Your task to perform on an android device: delete browsing data in the chrome app Image 0: 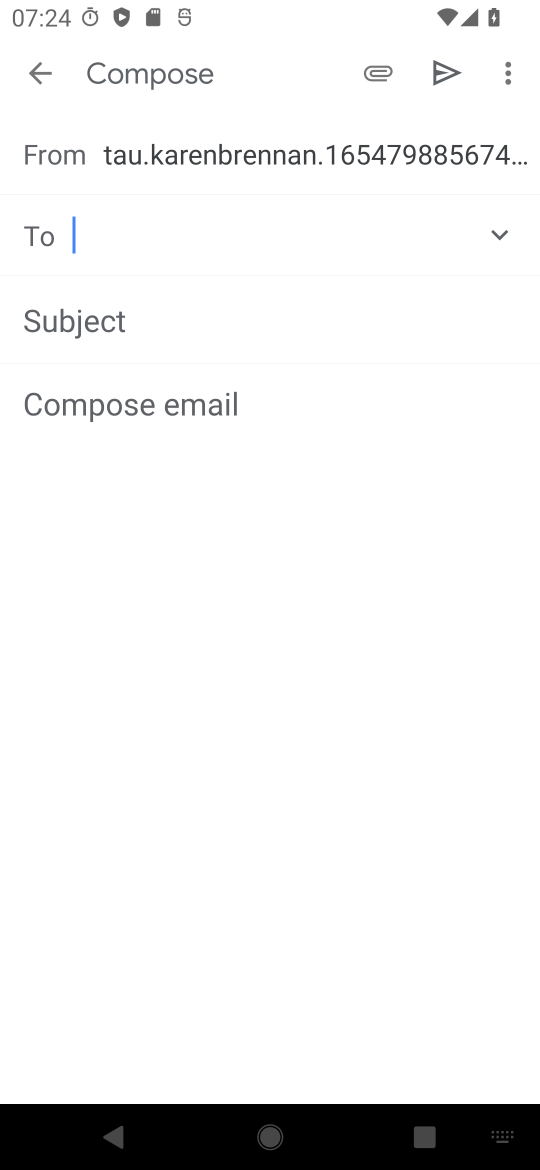
Step 0: press home button
Your task to perform on an android device: delete browsing data in the chrome app Image 1: 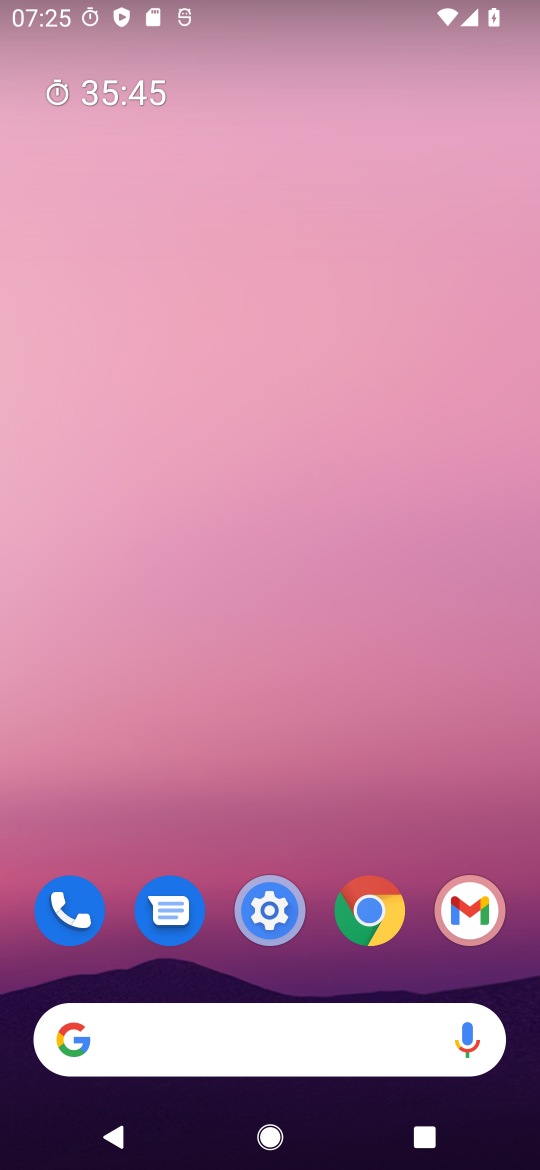
Step 1: drag from (330, 1023) to (316, 17)
Your task to perform on an android device: delete browsing data in the chrome app Image 2: 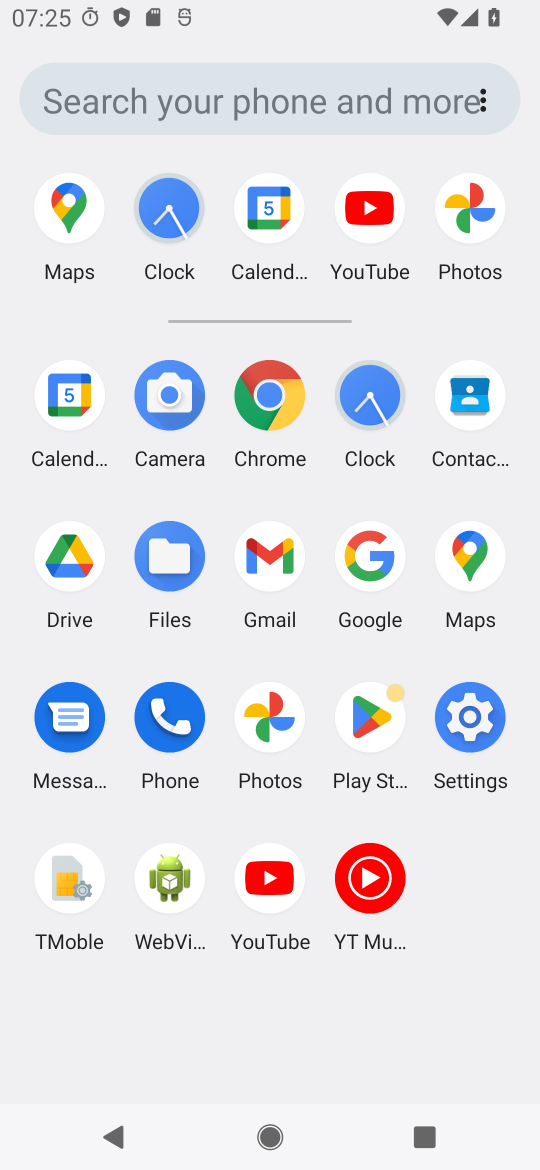
Step 2: click (245, 373)
Your task to perform on an android device: delete browsing data in the chrome app Image 3: 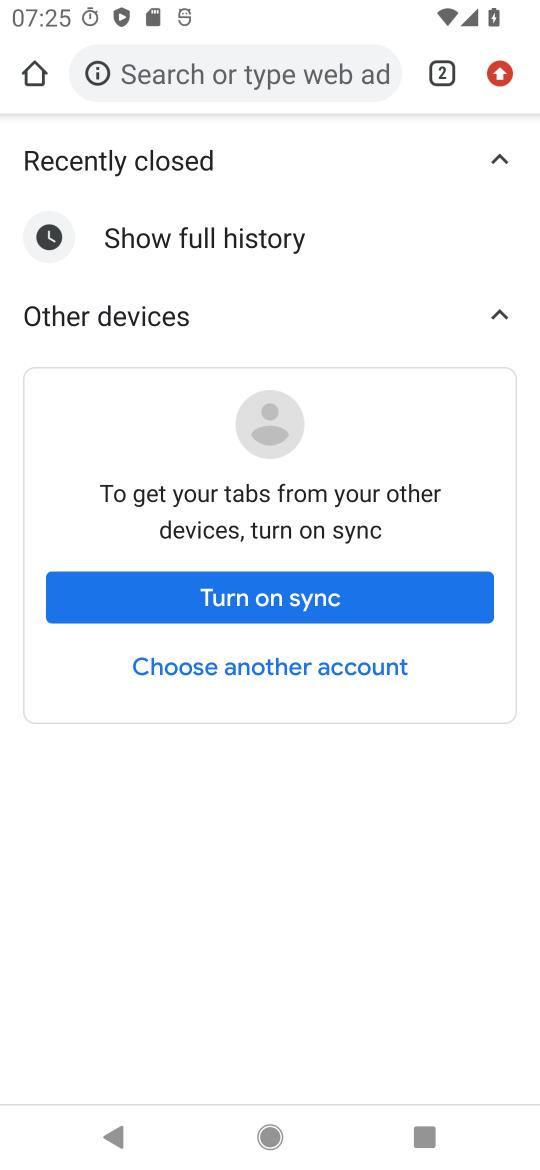
Step 3: click (512, 66)
Your task to perform on an android device: delete browsing data in the chrome app Image 4: 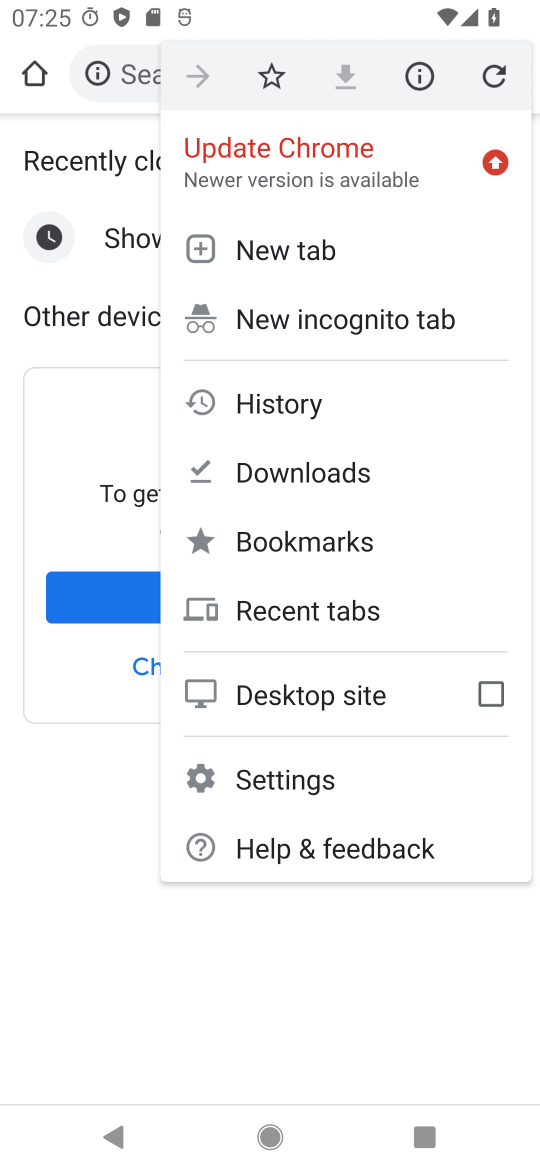
Step 4: click (309, 415)
Your task to perform on an android device: delete browsing data in the chrome app Image 5: 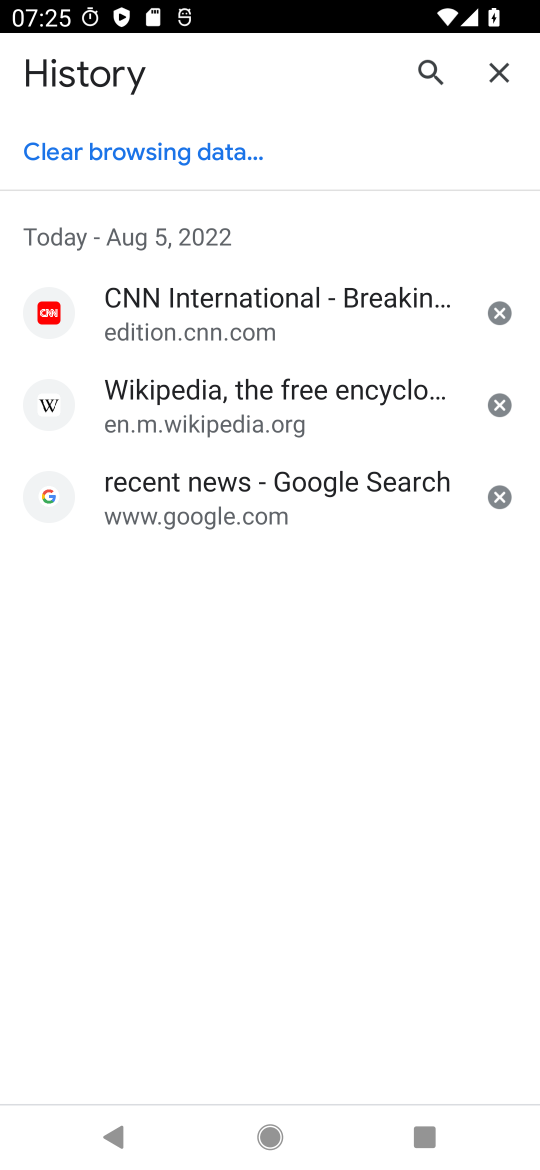
Step 5: click (229, 172)
Your task to perform on an android device: delete browsing data in the chrome app Image 6: 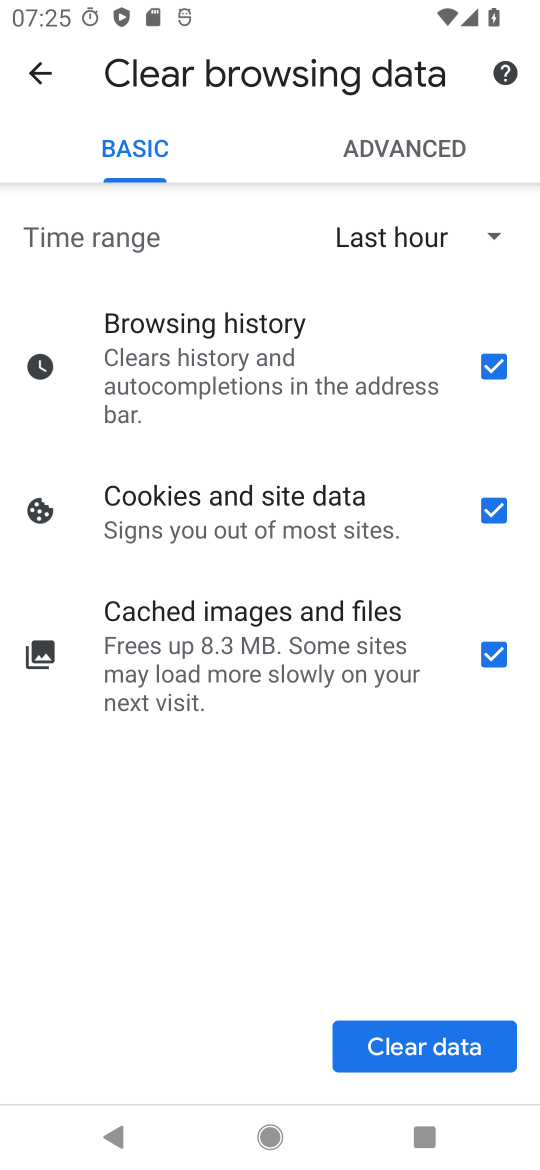
Step 6: click (419, 1060)
Your task to perform on an android device: delete browsing data in the chrome app Image 7: 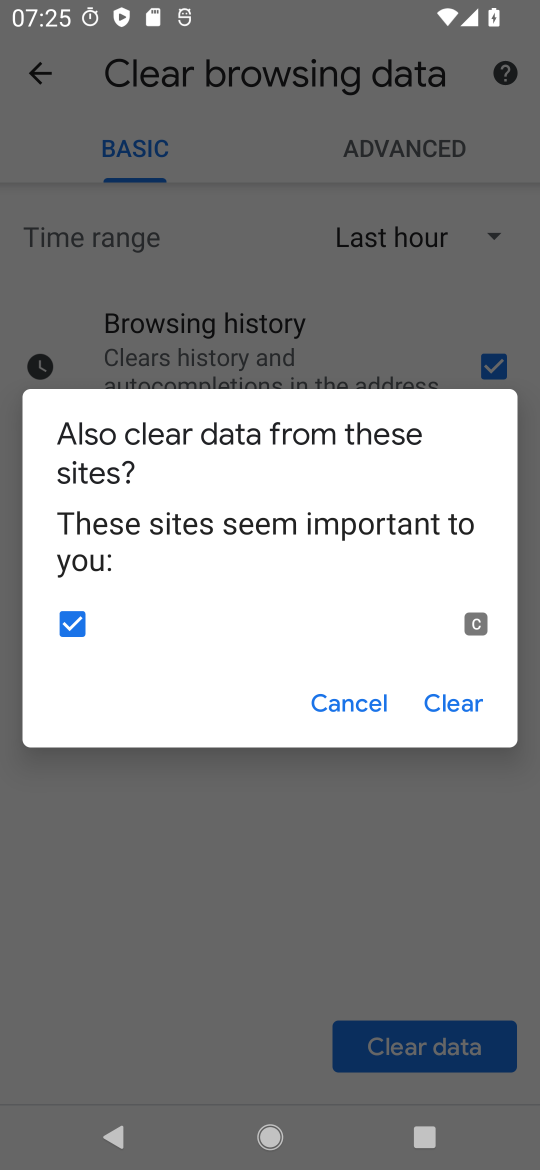
Step 7: click (461, 699)
Your task to perform on an android device: delete browsing data in the chrome app Image 8: 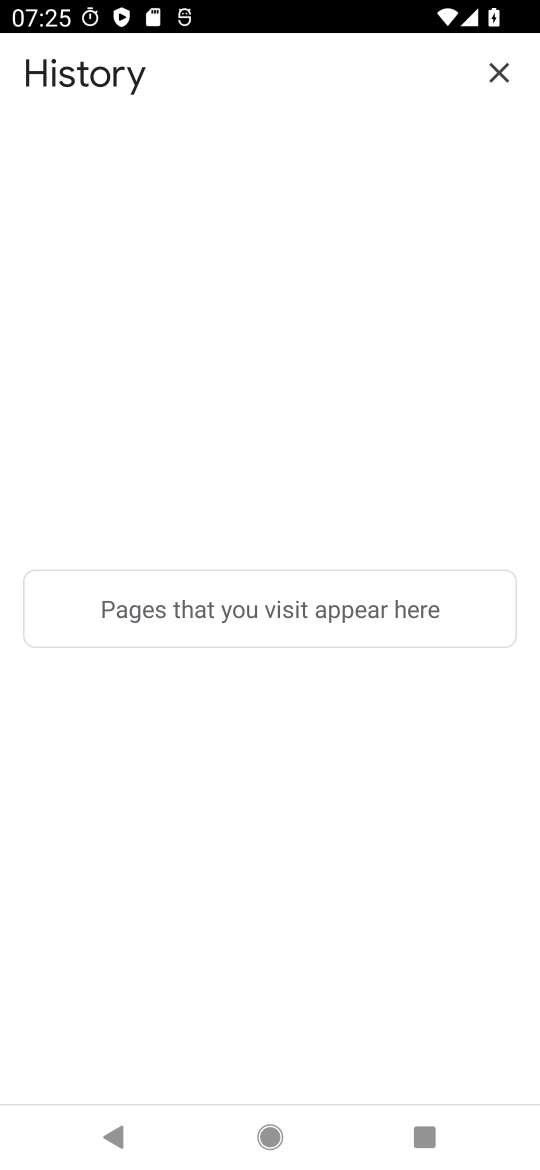
Step 8: task complete